Your task to perform on an android device: stop showing notifications on the lock screen Image 0: 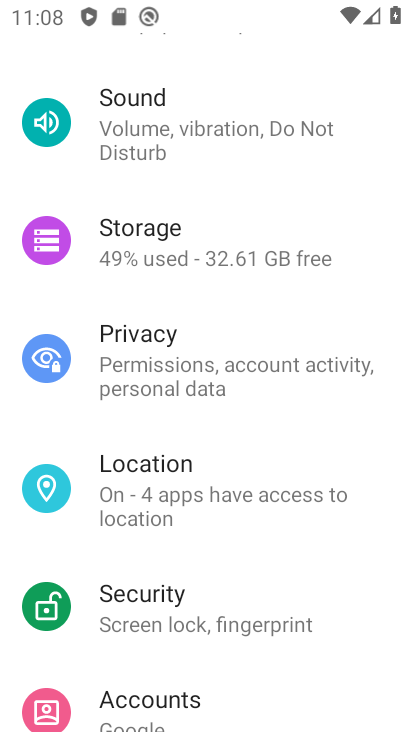
Step 0: press home button
Your task to perform on an android device: stop showing notifications on the lock screen Image 1: 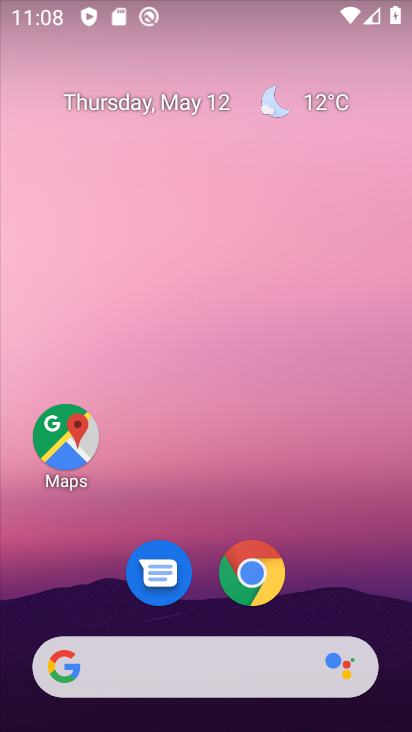
Step 1: drag from (357, 583) to (341, 93)
Your task to perform on an android device: stop showing notifications on the lock screen Image 2: 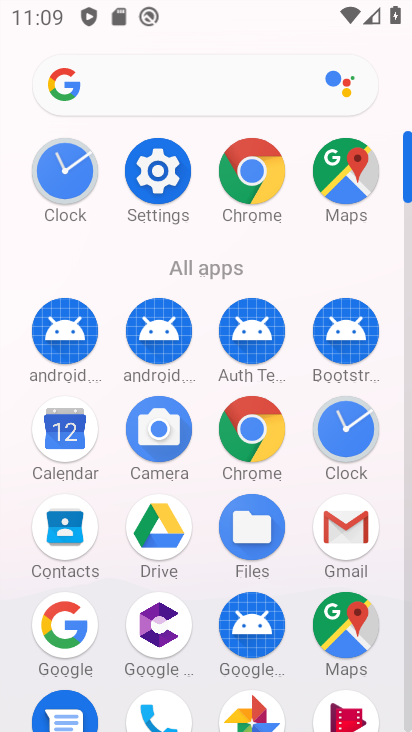
Step 2: click (193, 171)
Your task to perform on an android device: stop showing notifications on the lock screen Image 3: 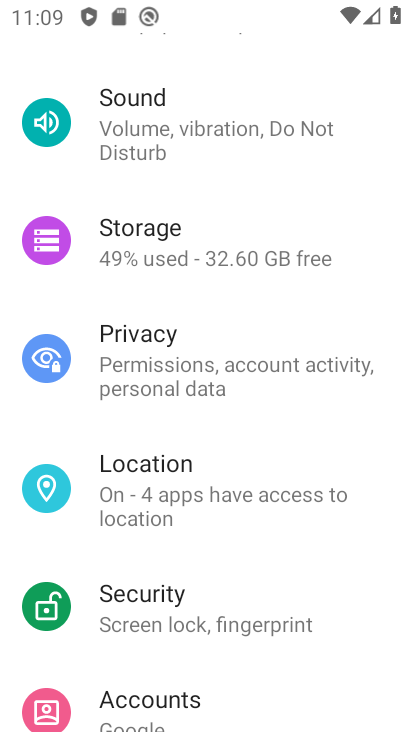
Step 3: drag from (306, 162) to (28, 712)
Your task to perform on an android device: stop showing notifications on the lock screen Image 4: 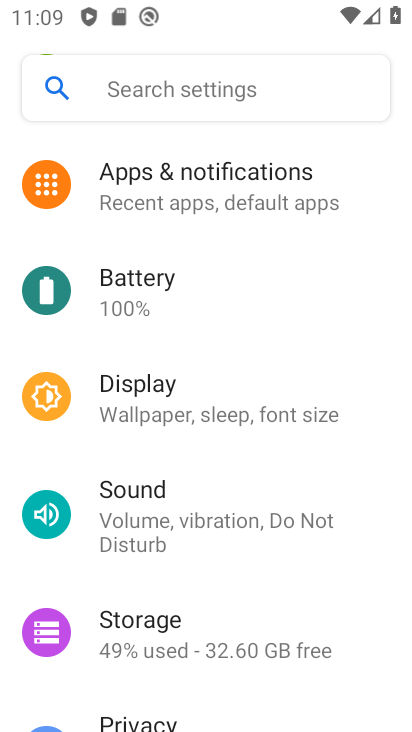
Step 4: click (198, 217)
Your task to perform on an android device: stop showing notifications on the lock screen Image 5: 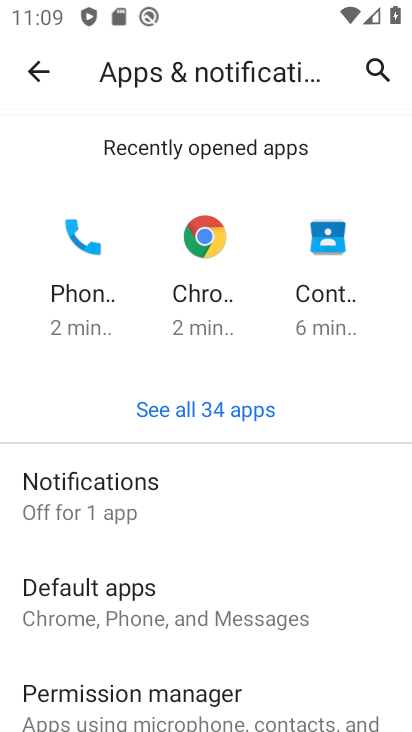
Step 5: click (120, 474)
Your task to perform on an android device: stop showing notifications on the lock screen Image 6: 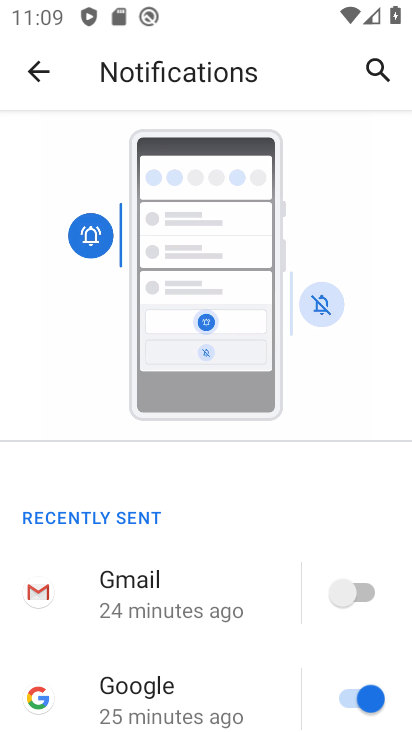
Step 6: drag from (220, 589) to (247, 193)
Your task to perform on an android device: stop showing notifications on the lock screen Image 7: 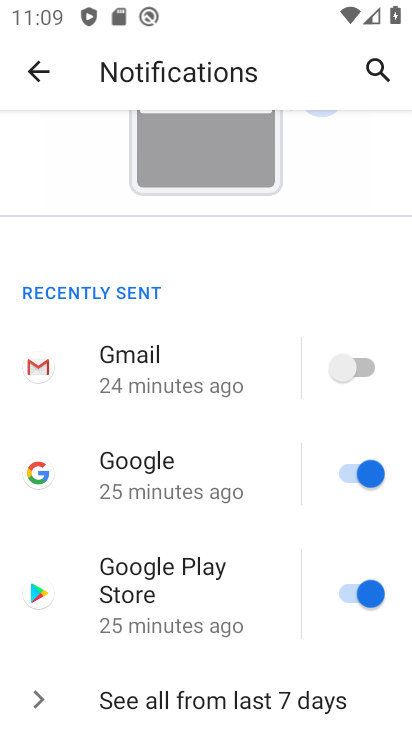
Step 7: drag from (167, 513) to (211, 155)
Your task to perform on an android device: stop showing notifications on the lock screen Image 8: 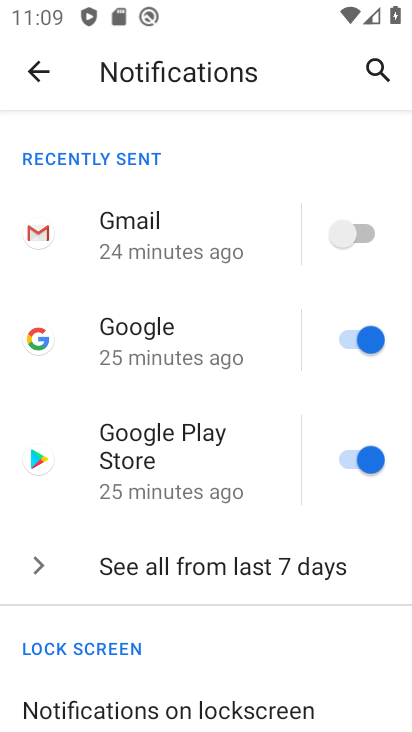
Step 8: drag from (224, 657) to (190, 378)
Your task to perform on an android device: stop showing notifications on the lock screen Image 9: 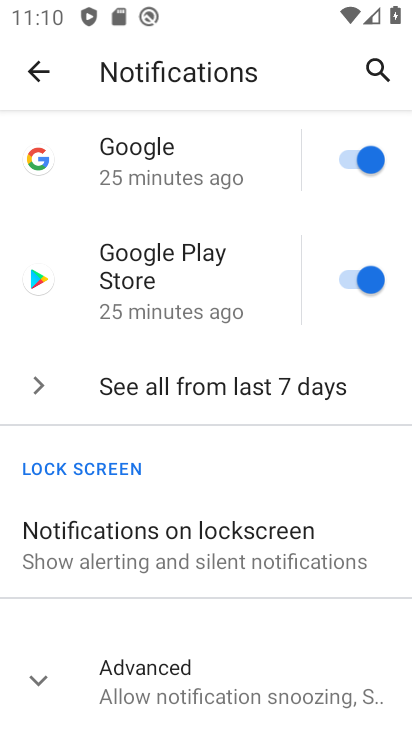
Step 9: click (225, 551)
Your task to perform on an android device: stop showing notifications on the lock screen Image 10: 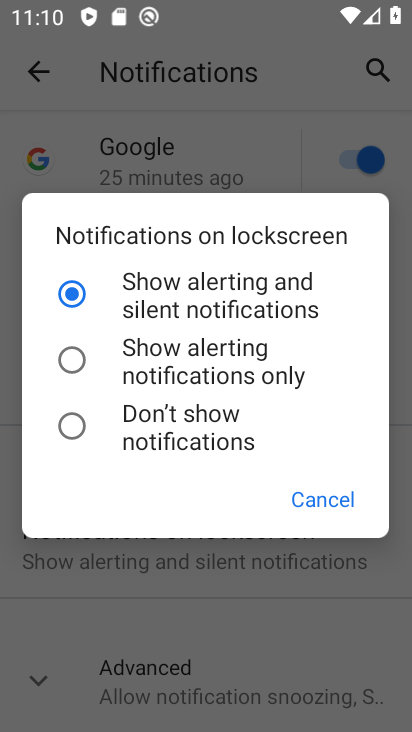
Step 10: click (160, 426)
Your task to perform on an android device: stop showing notifications on the lock screen Image 11: 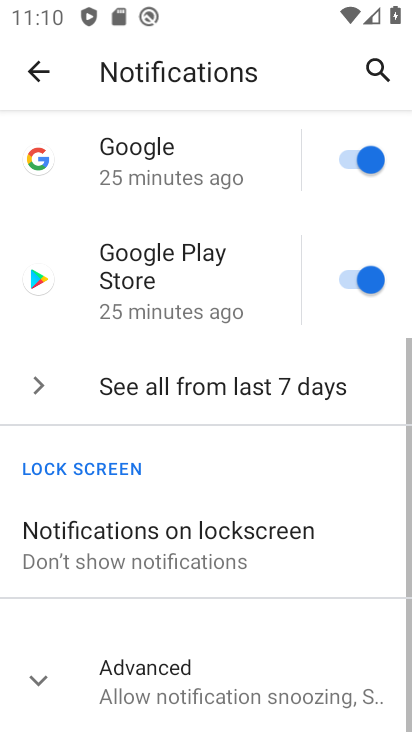
Step 11: task complete